Your task to perform on an android device: all mails in gmail Image 0: 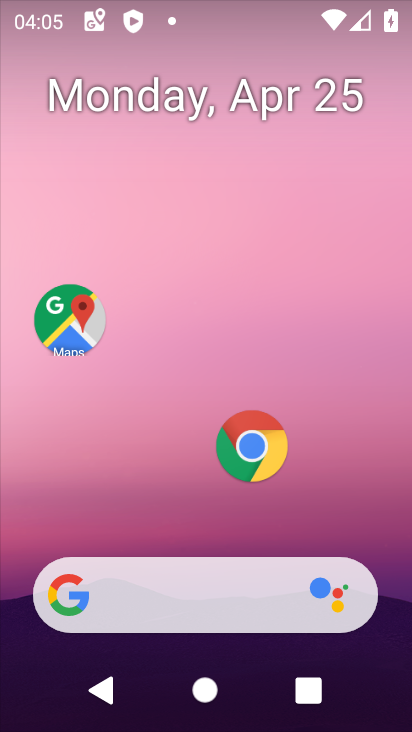
Step 0: drag from (171, 590) to (203, 197)
Your task to perform on an android device: all mails in gmail Image 1: 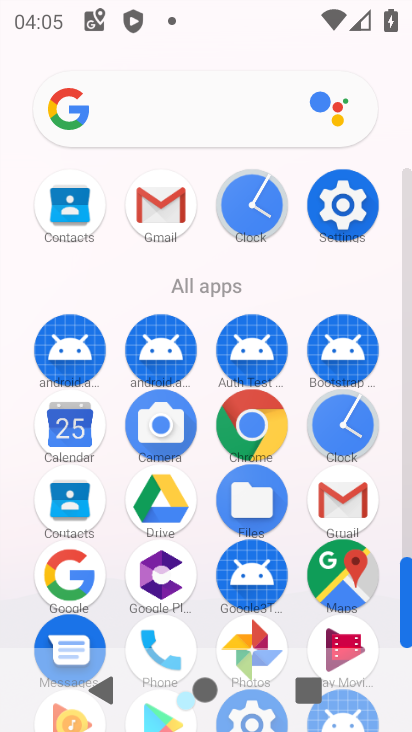
Step 1: click (168, 202)
Your task to perform on an android device: all mails in gmail Image 2: 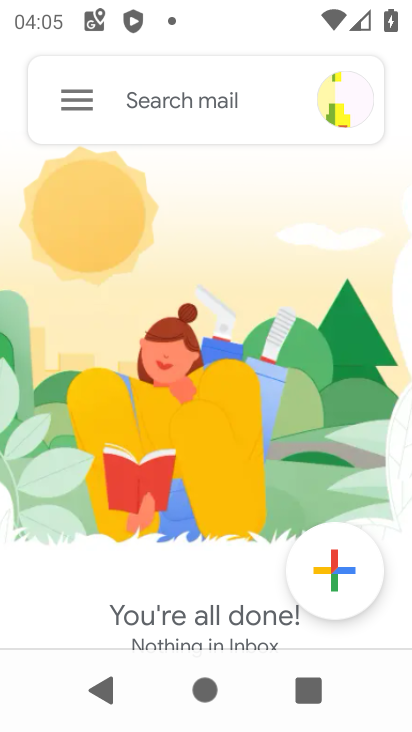
Step 2: click (87, 108)
Your task to perform on an android device: all mails in gmail Image 3: 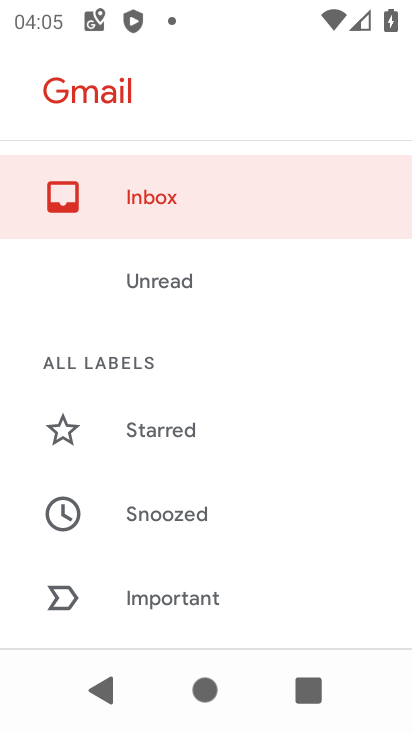
Step 3: click (205, 120)
Your task to perform on an android device: all mails in gmail Image 4: 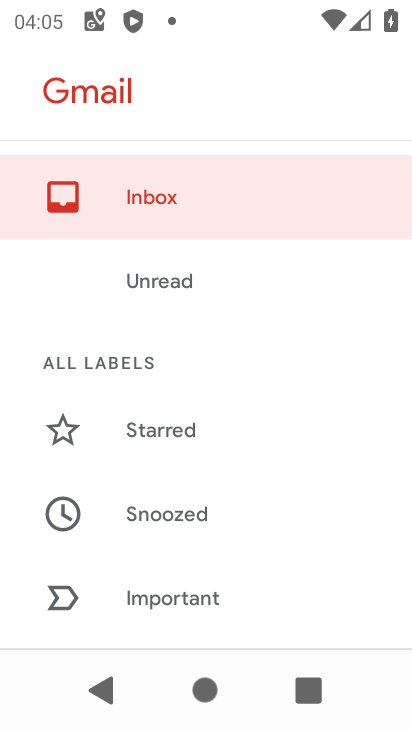
Step 4: drag from (126, 637) to (171, 12)
Your task to perform on an android device: all mails in gmail Image 5: 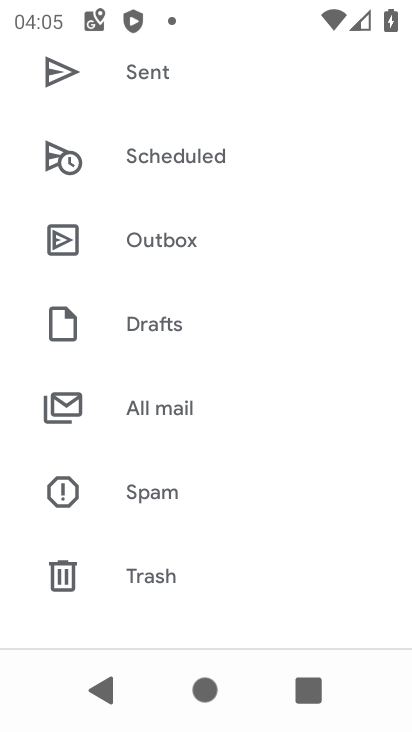
Step 5: click (135, 418)
Your task to perform on an android device: all mails in gmail Image 6: 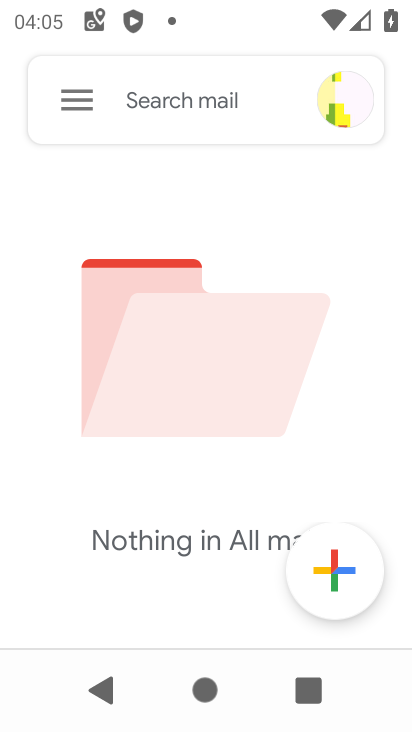
Step 6: click (223, 415)
Your task to perform on an android device: all mails in gmail Image 7: 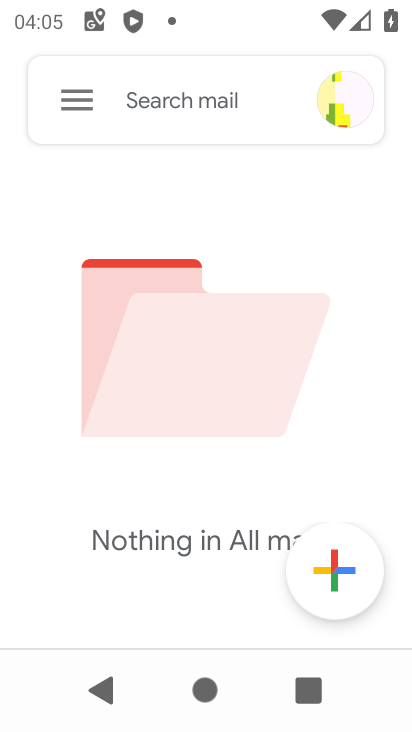
Step 7: task complete